Your task to perform on an android device: turn pop-ups on in chrome Image 0: 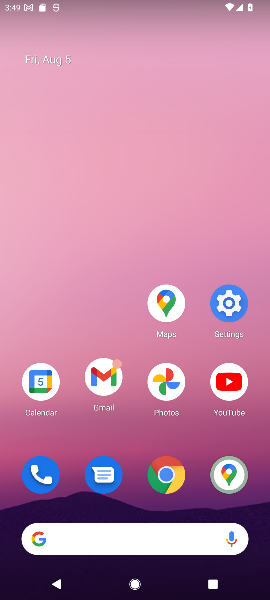
Step 0: click (171, 473)
Your task to perform on an android device: turn pop-ups on in chrome Image 1: 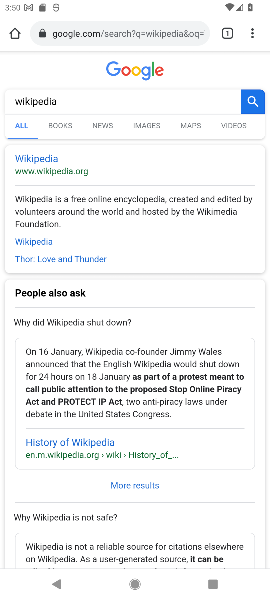
Step 1: click (250, 31)
Your task to perform on an android device: turn pop-ups on in chrome Image 2: 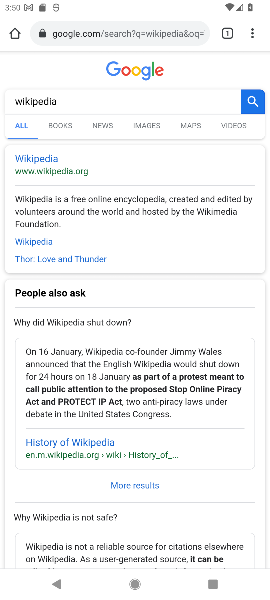
Step 2: click (250, 31)
Your task to perform on an android device: turn pop-ups on in chrome Image 3: 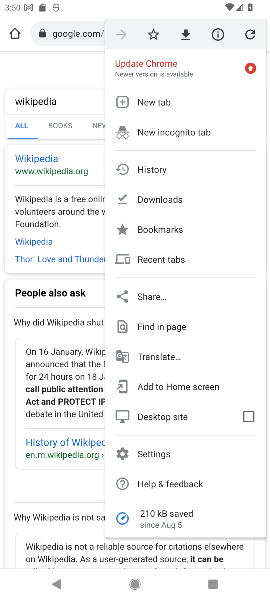
Step 3: click (165, 452)
Your task to perform on an android device: turn pop-ups on in chrome Image 4: 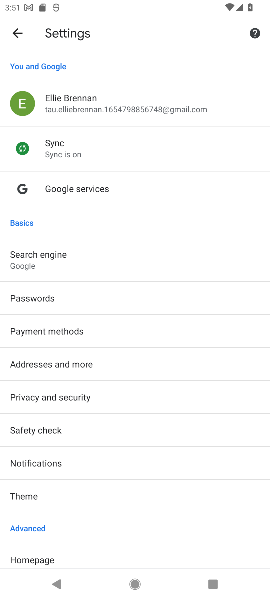
Step 4: drag from (111, 512) to (106, 278)
Your task to perform on an android device: turn pop-ups on in chrome Image 5: 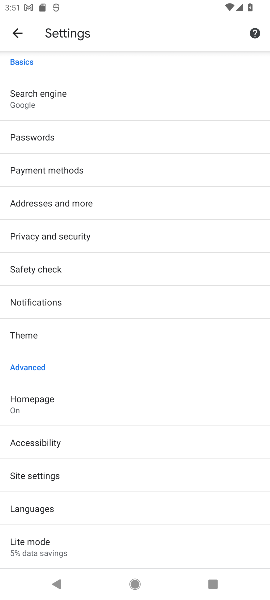
Step 5: click (43, 473)
Your task to perform on an android device: turn pop-ups on in chrome Image 6: 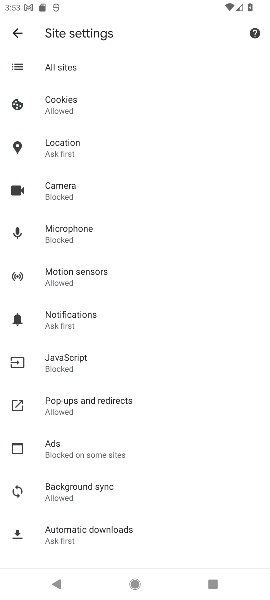
Step 6: click (76, 402)
Your task to perform on an android device: turn pop-ups on in chrome Image 7: 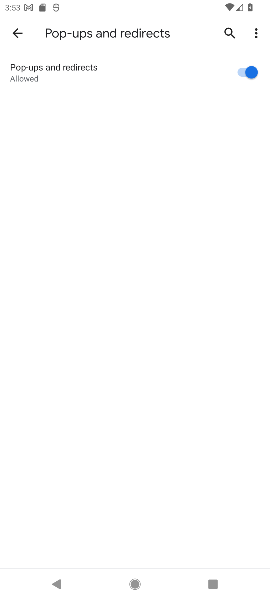
Step 7: task complete